Your task to perform on an android device: turn off improve location accuracy Image 0: 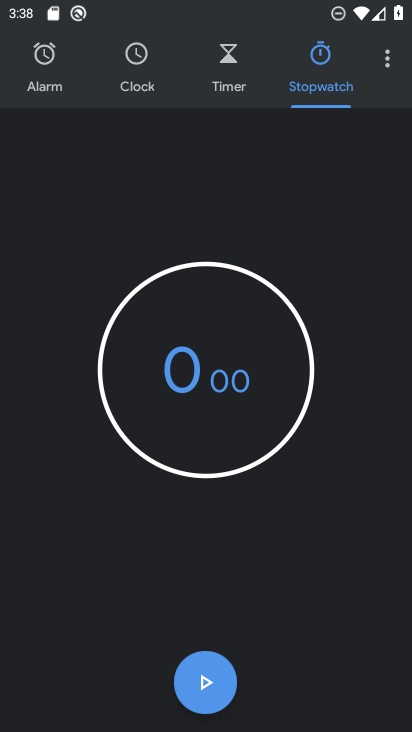
Step 0: press back button
Your task to perform on an android device: turn off improve location accuracy Image 1: 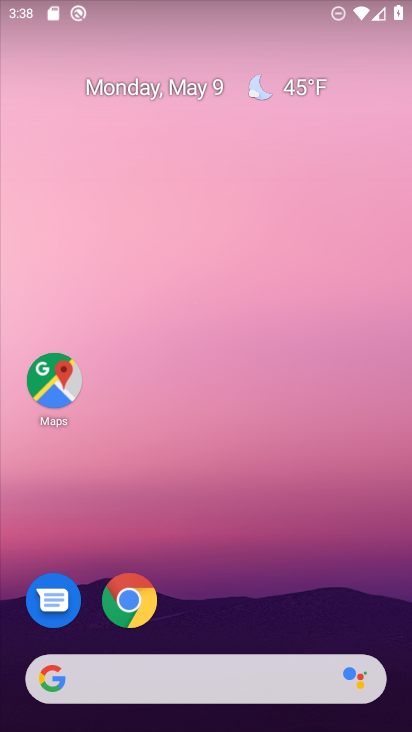
Step 1: drag from (240, 529) to (209, 28)
Your task to perform on an android device: turn off improve location accuracy Image 2: 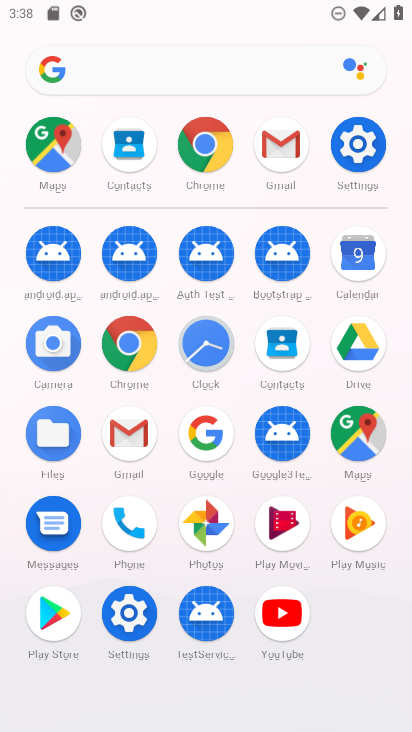
Step 2: drag from (15, 641) to (4, 239)
Your task to perform on an android device: turn off improve location accuracy Image 3: 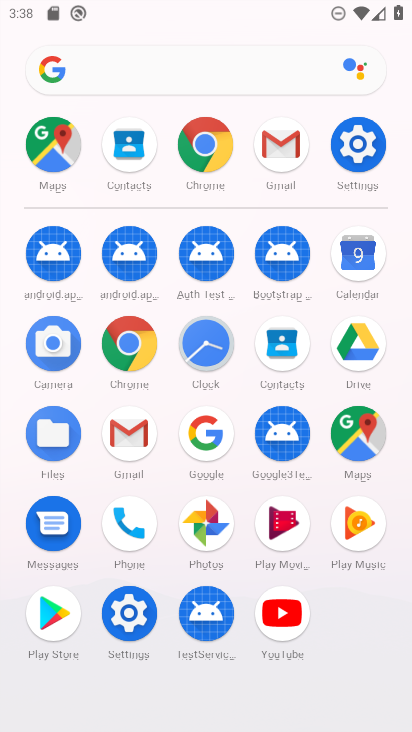
Step 3: click (365, 149)
Your task to perform on an android device: turn off improve location accuracy Image 4: 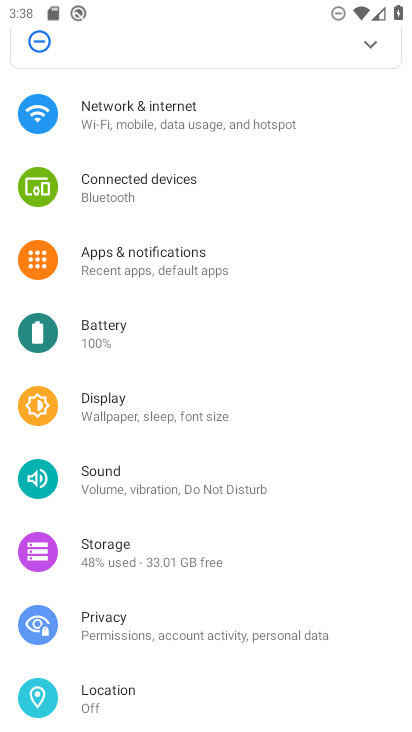
Step 4: drag from (217, 535) to (246, 96)
Your task to perform on an android device: turn off improve location accuracy Image 5: 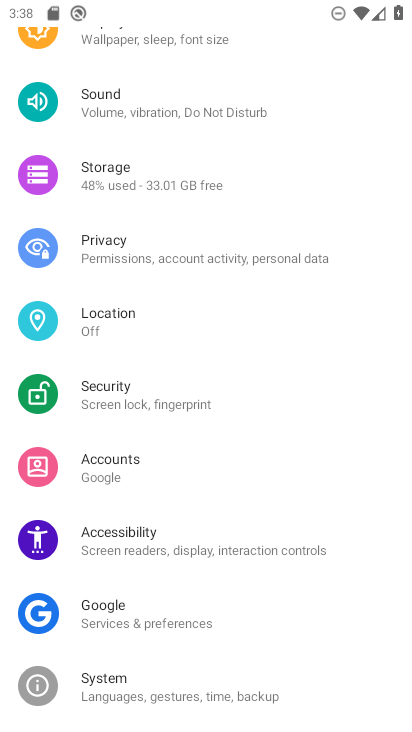
Step 5: drag from (221, 487) to (258, 190)
Your task to perform on an android device: turn off improve location accuracy Image 6: 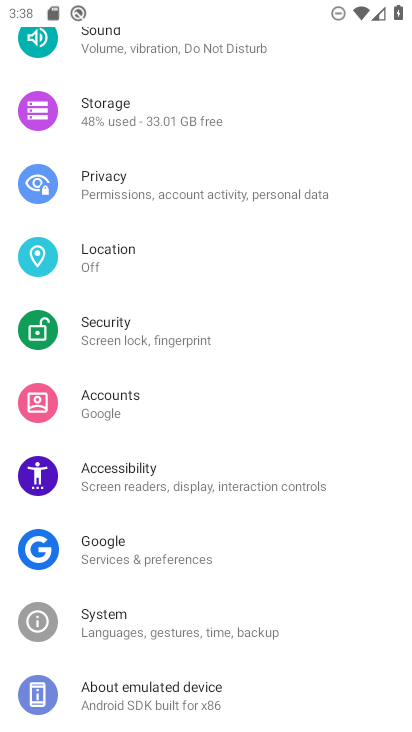
Step 6: click (135, 250)
Your task to perform on an android device: turn off improve location accuracy Image 7: 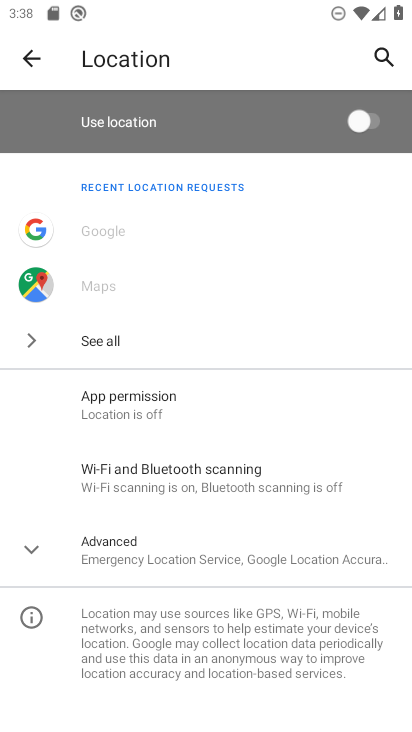
Step 7: drag from (242, 597) to (253, 273)
Your task to perform on an android device: turn off improve location accuracy Image 8: 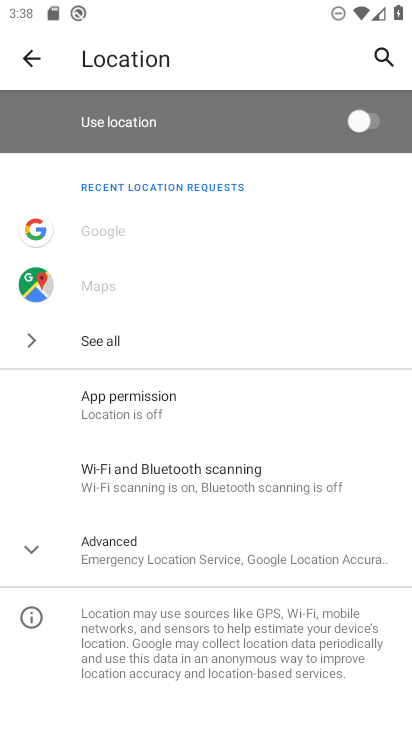
Step 8: click (36, 546)
Your task to perform on an android device: turn off improve location accuracy Image 9: 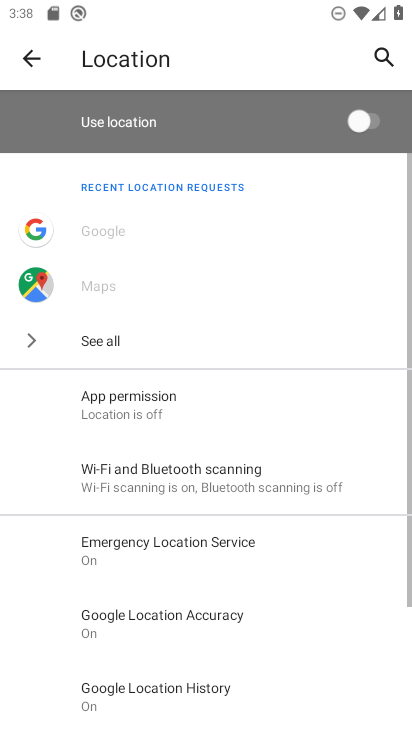
Step 9: task complete